Your task to perform on an android device: Check the weather Image 0: 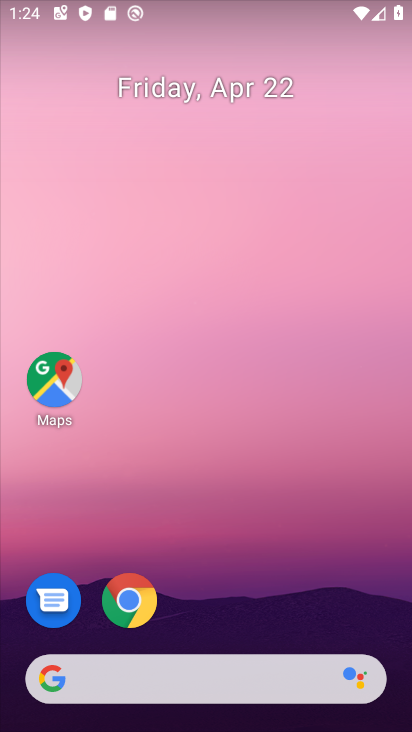
Step 0: drag from (228, 680) to (216, 208)
Your task to perform on an android device: Check the weather Image 1: 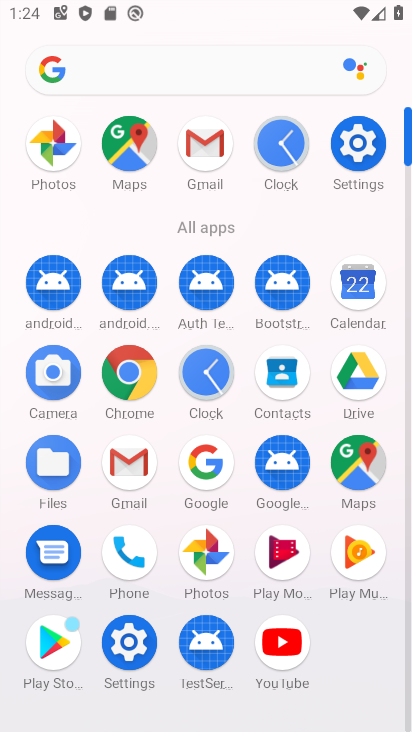
Step 1: click (209, 460)
Your task to perform on an android device: Check the weather Image 2: 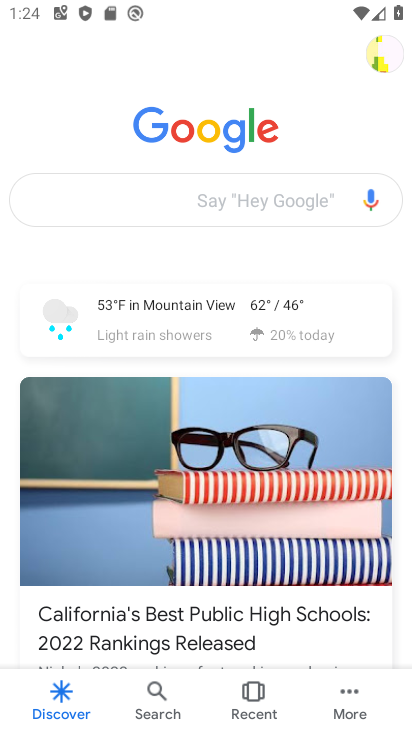
Step 2: click (105, 309)
Your task to perform on an android device: Check the weather Image 3: 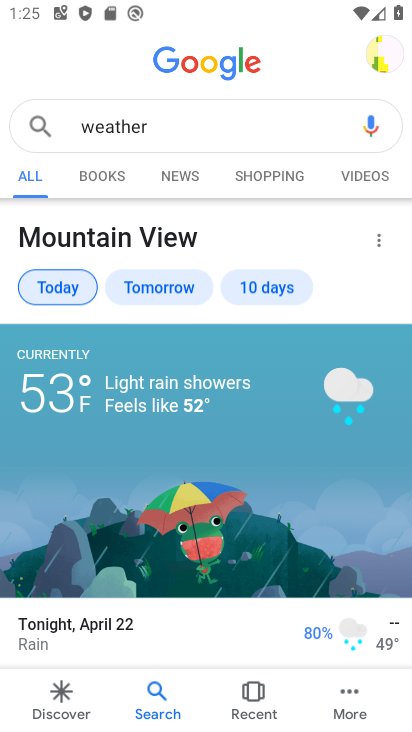
Step 3: task complete